Your task to perform on an android device: Search for pizza restaurants on Maps Image 0: 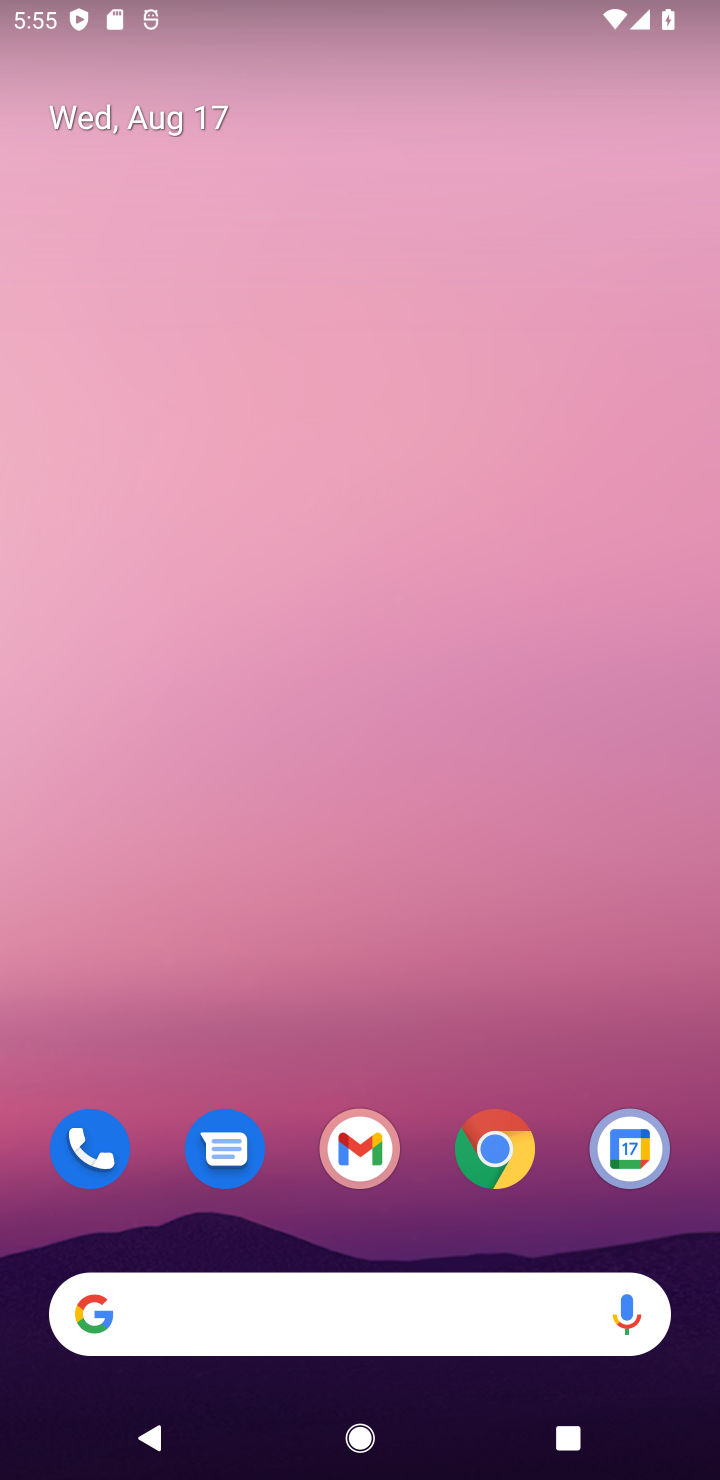
Step 0: click (453, 945)
Your task to perform on an android device: Search for pizza restaurants on Maps Image 1: 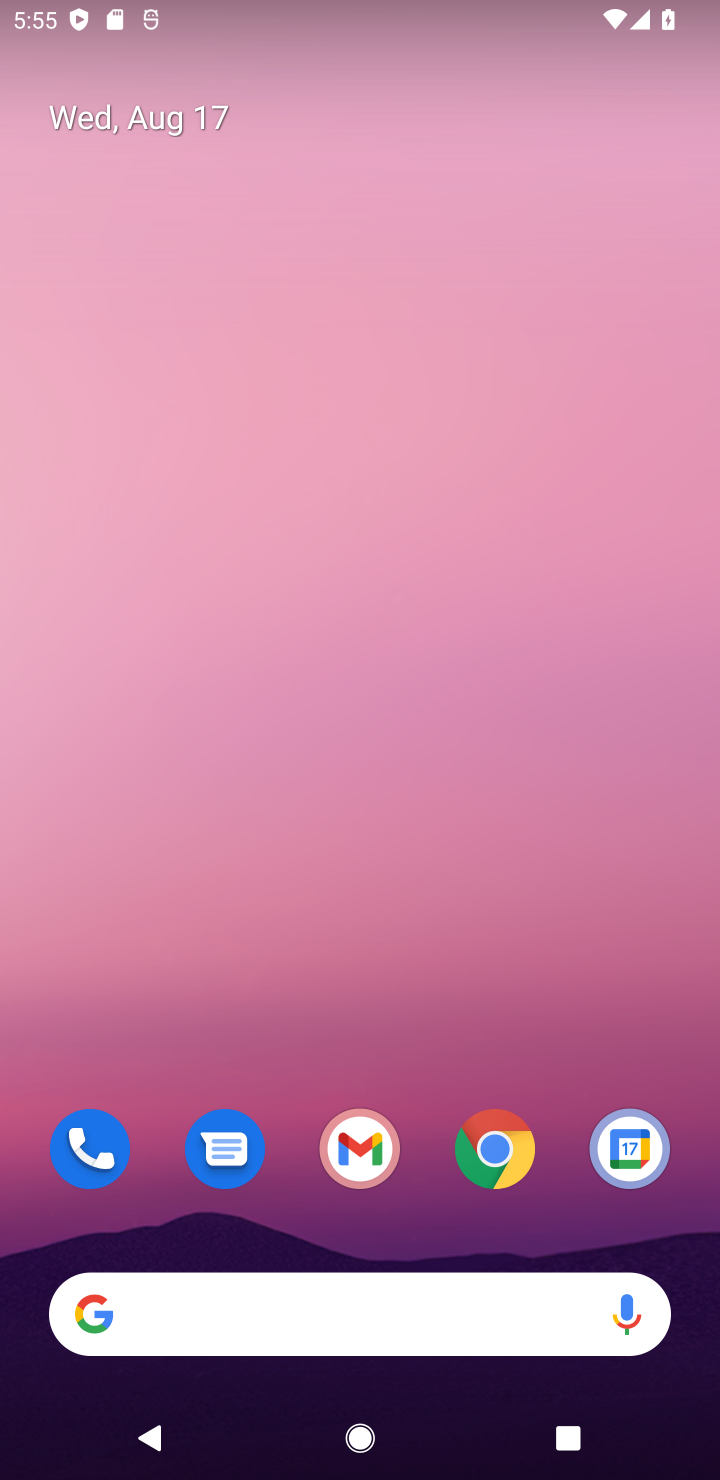
Step 1: drag from (366, 845) to (306, 44)
Your task to perform on an android device: Search for pizza restaurants on Maps Image 2: 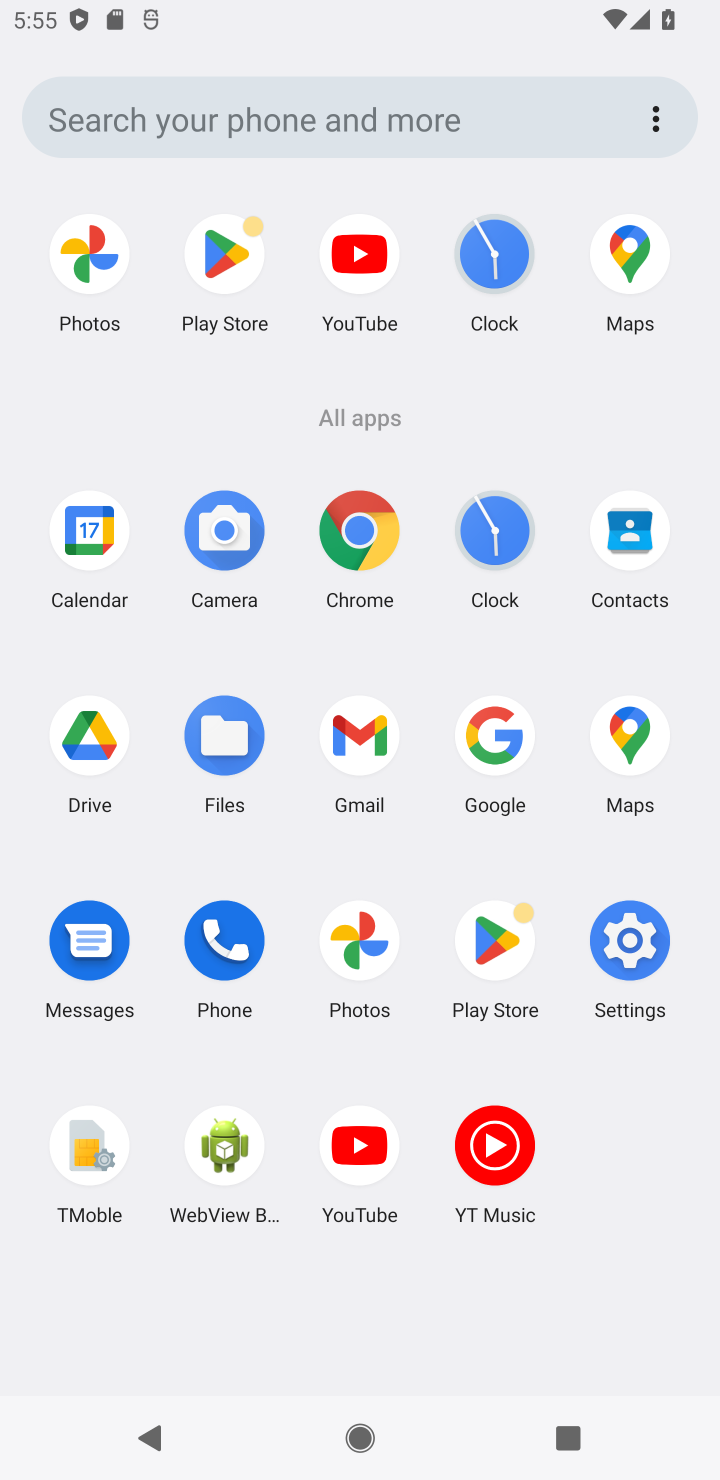
Step 2: click (625, 255)
Your task to perform on an android device: Search for pizza restaurants on Maps Image 3: 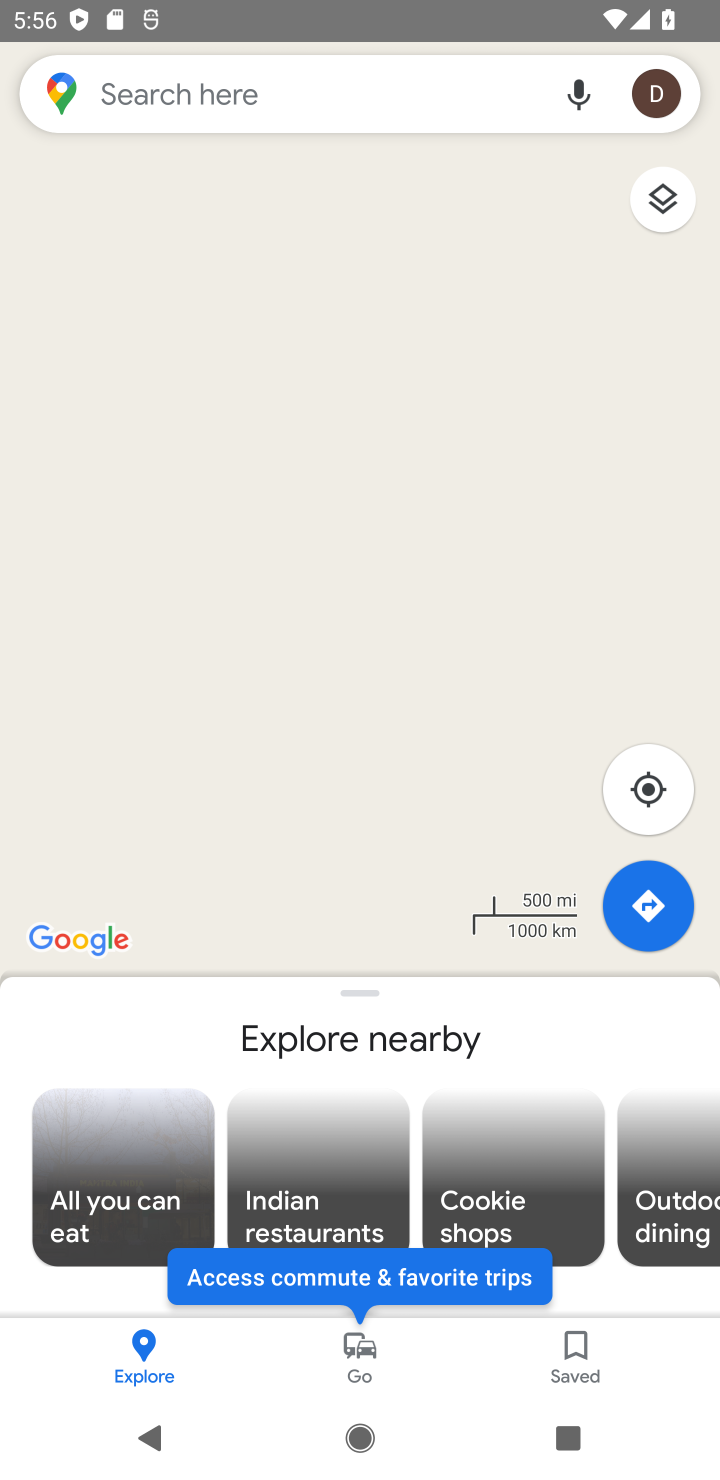
Step 3: click (384, 97)
Your task to perform on an android device: Search for pizza restaurants on Maps Image 4: 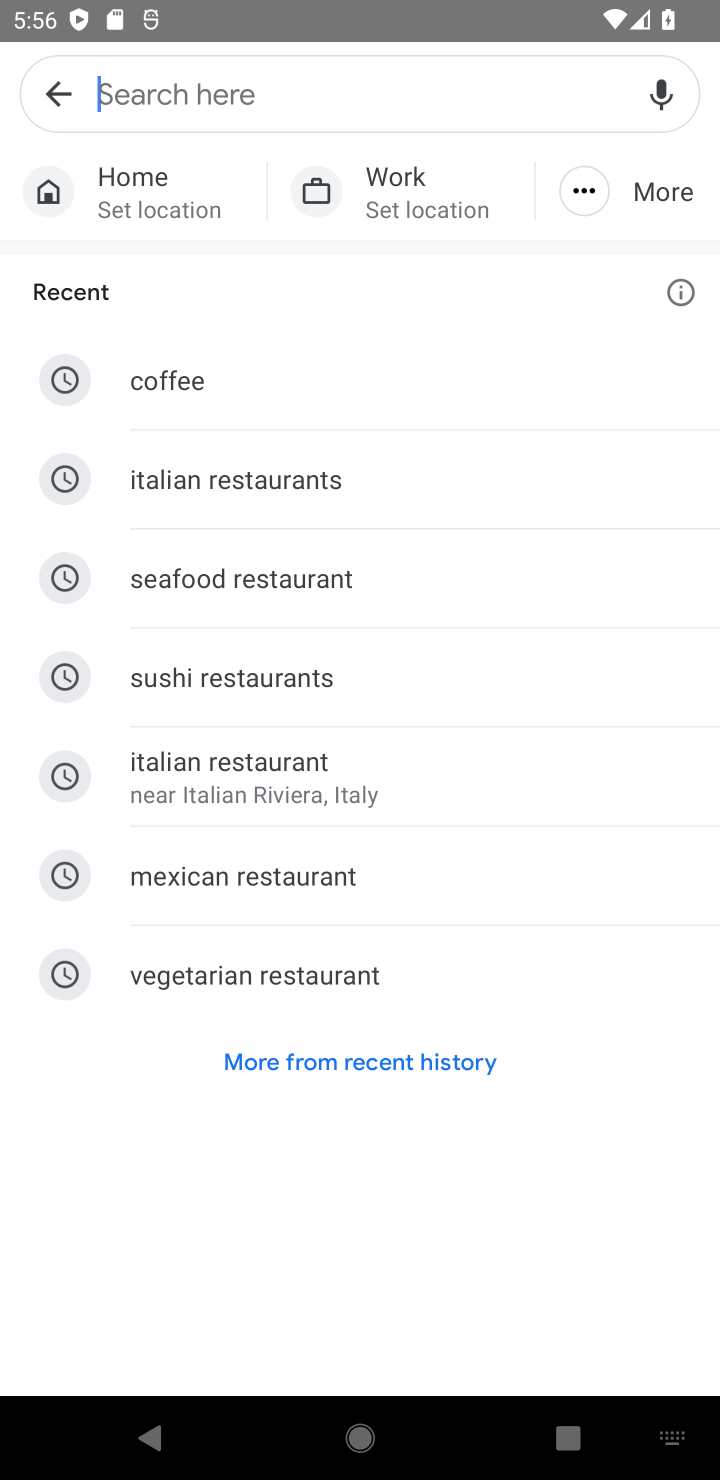
Step 4: type "pizza restaurants"
Your task to perform on an android device: Search for pizza restaurants on Maps Image 5: 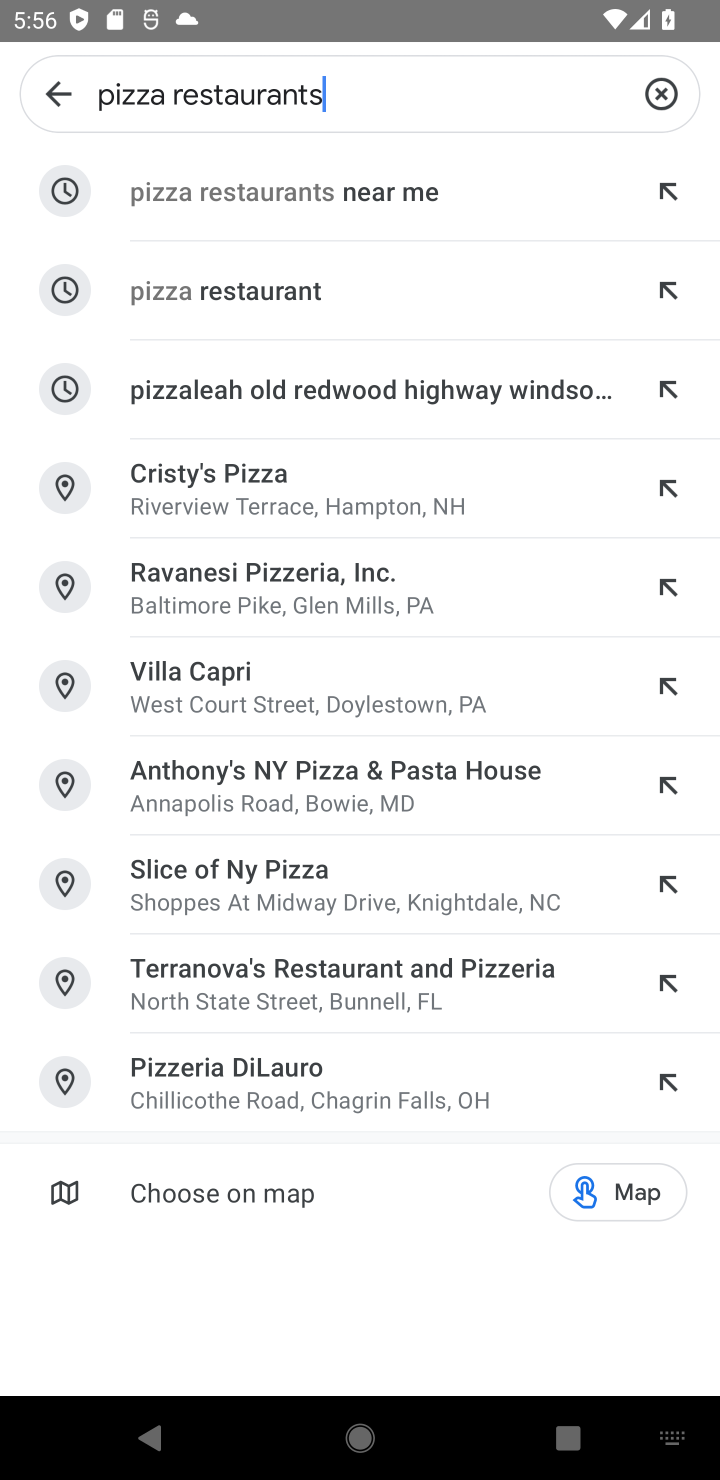
Step 5: click (205, 286)
Your task to perform on an android device: Search for pizza restaurants on Maps Image 6: 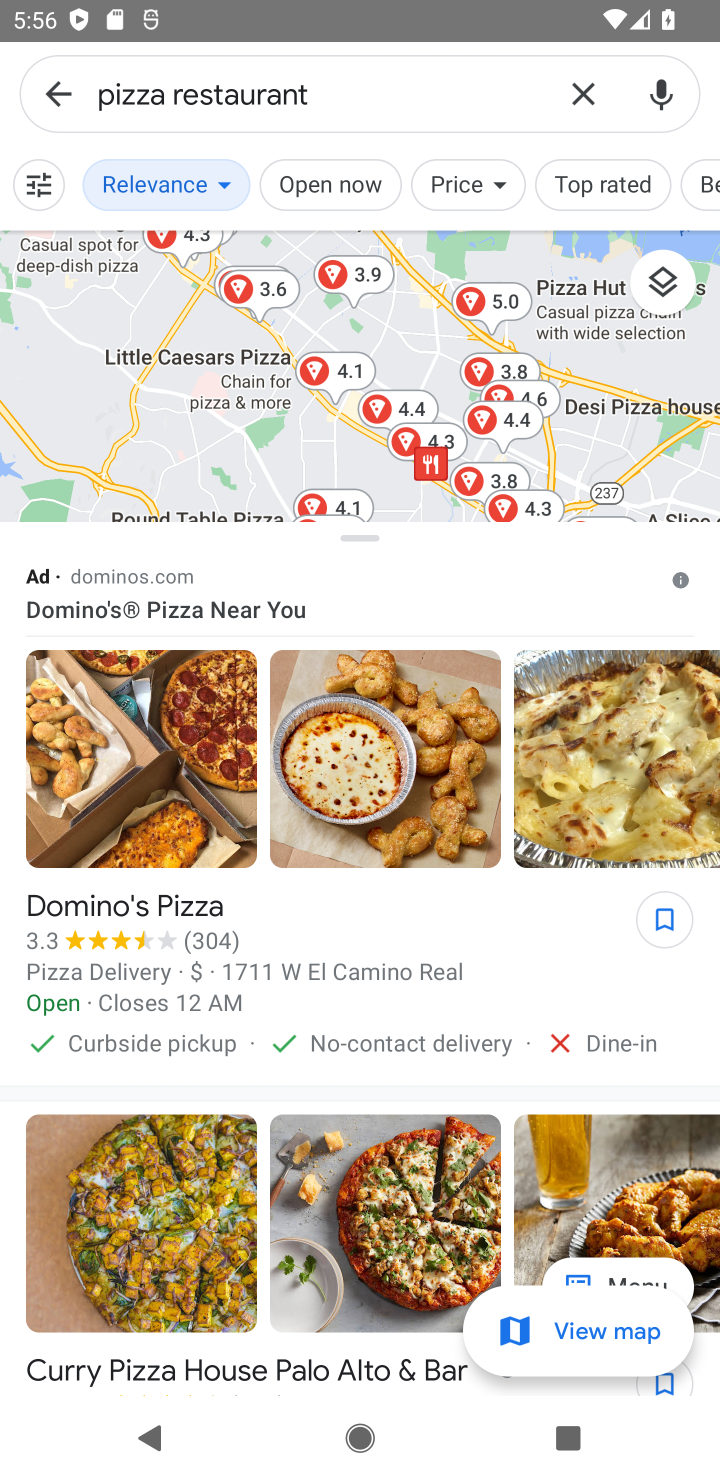
Step 6: task complete